Your task to perform on an android device: all mails in gmail Image 0: 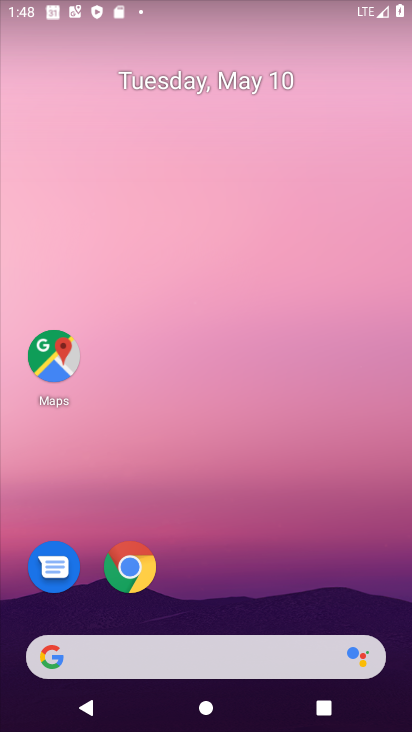
Step 0: drag from (387, 614) to (380, 85)
Your task to perform on an android device: all mails in gmail Image 1: 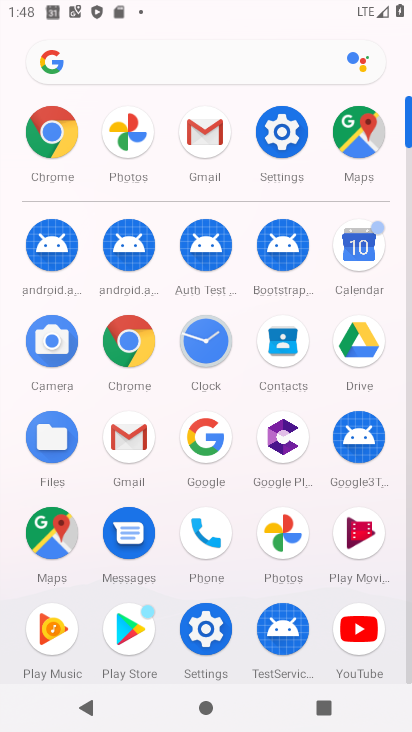
Step 1: click (138, 447)
Your task to perform on an android device: all mails in gmail Image 2: 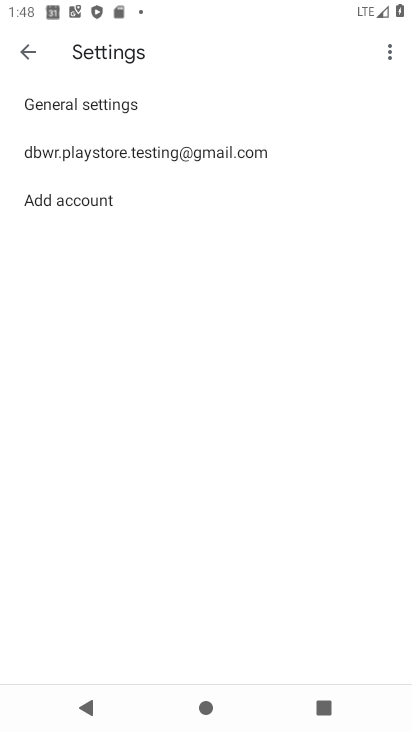
Step 2: click (84, 142)
Your task to perform on an android device: all mails in gmail Image 3: 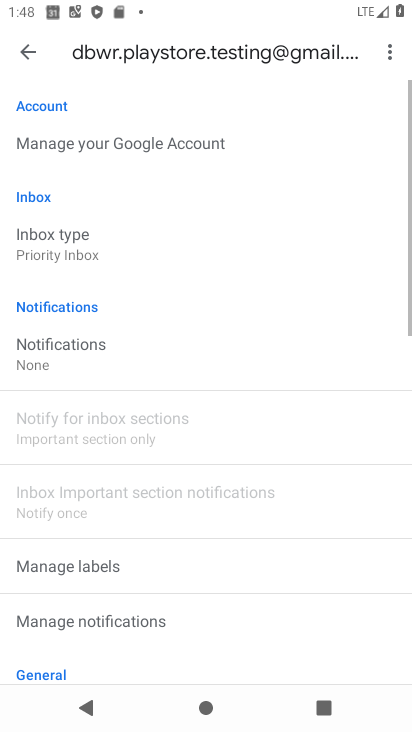
Step 3: press back button
Your task to perform on an android device: all mails in gmail Image 4: 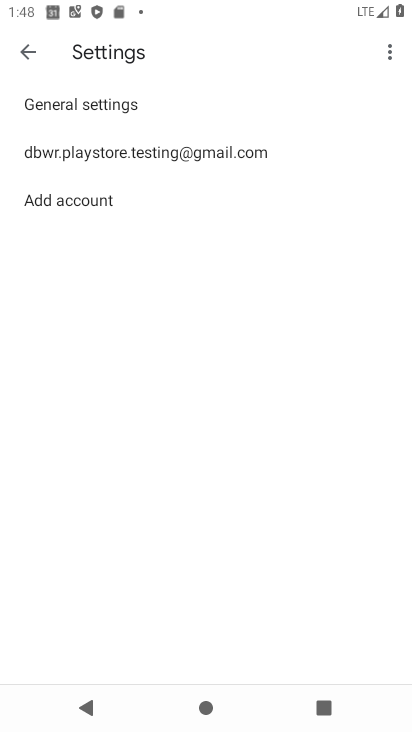
Step 4: press back button
Your task to perform on an android device: all mails in gmail Image 5: 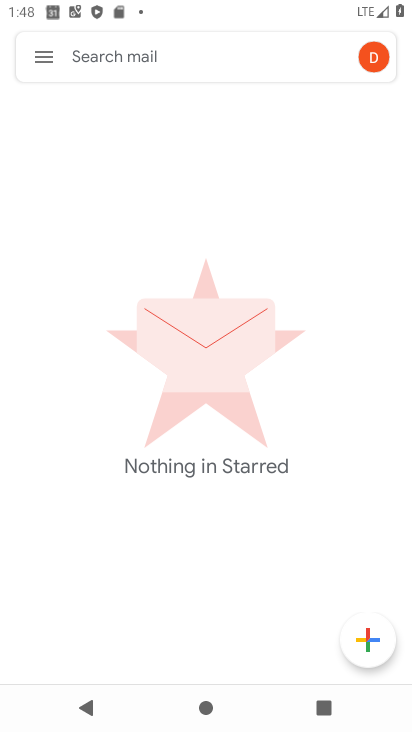
Step 5: click (42, 63)
Your task to perform on an android device: all mails in gmail Image 6: 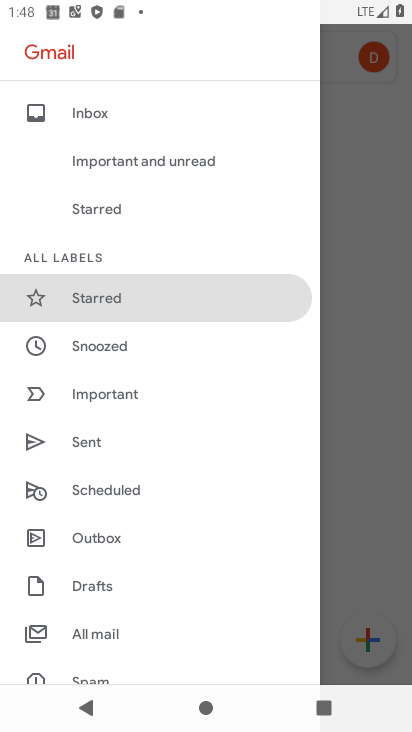
Step 6: click (117, 627)
Your task to perform on an android device: all mails in gmail Image 7: 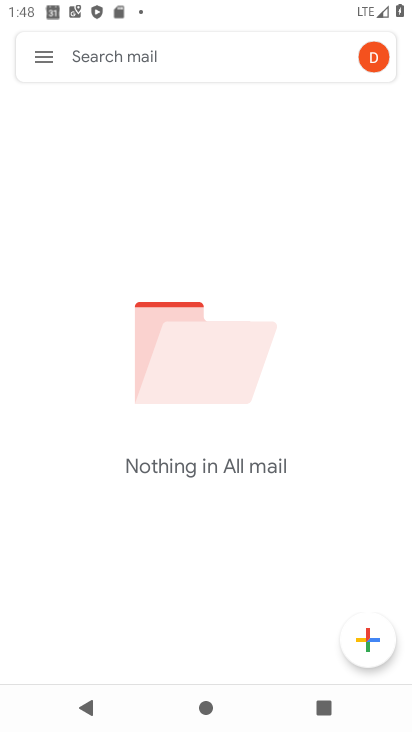
Step 7: task complete